Your task to perform on an android device: toggle notifications settings in the gmail app Image 0: 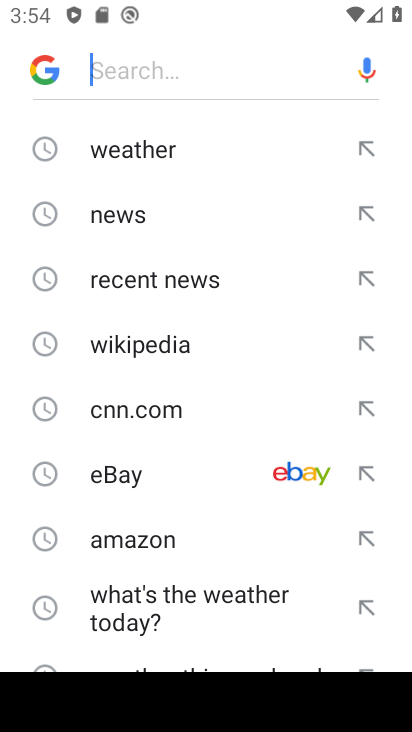
Step 0: press back button
Your task to perform on an android device: toggle notifications settings in the gmail app Image 1: 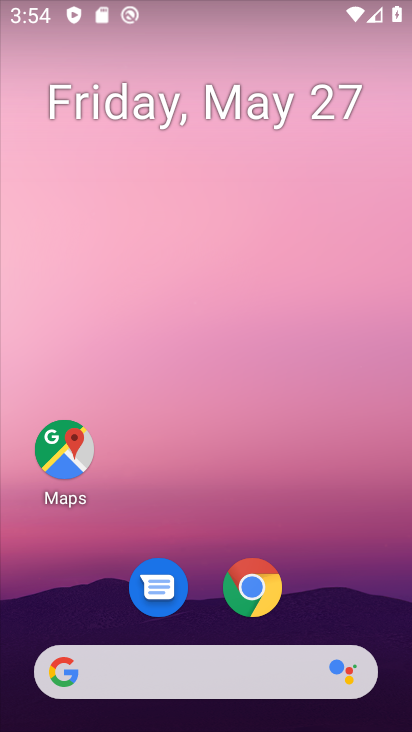
Step 1: drag from (334, 582) to (281, 47)
Your task to perform on an android device: toggle notifications settings in the gmail app Image 2: 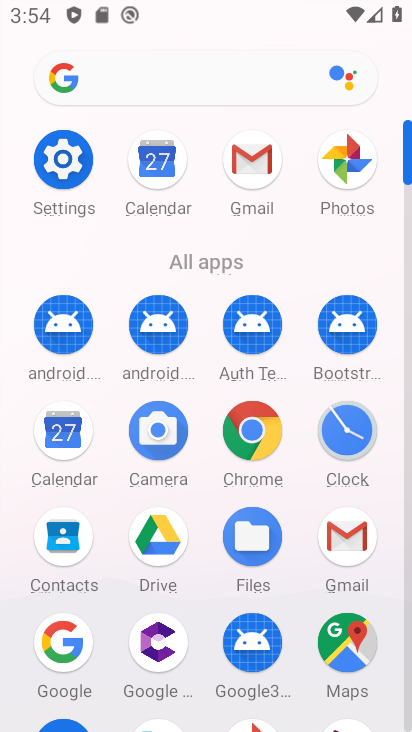
Step 2: drag from (9, 562) to (28, 190)
Your task to perform on an android device: toggle notifications settings in the gmail app Image 3: 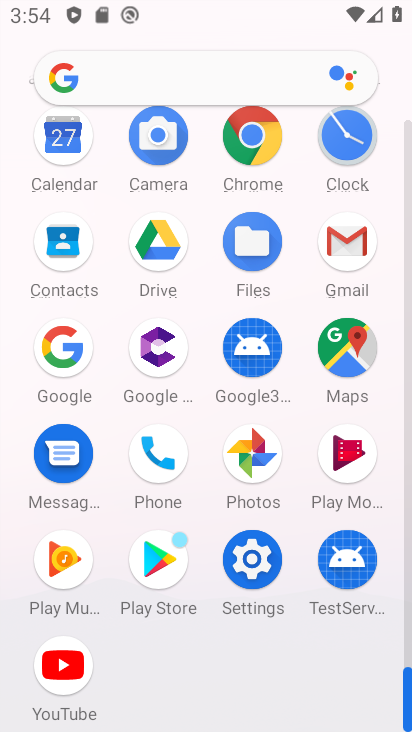
Step 3: drag from (3, 563) to (24, 232)
Your task to perform on an android device: toggle notifications settings in the gmail app Image 4: 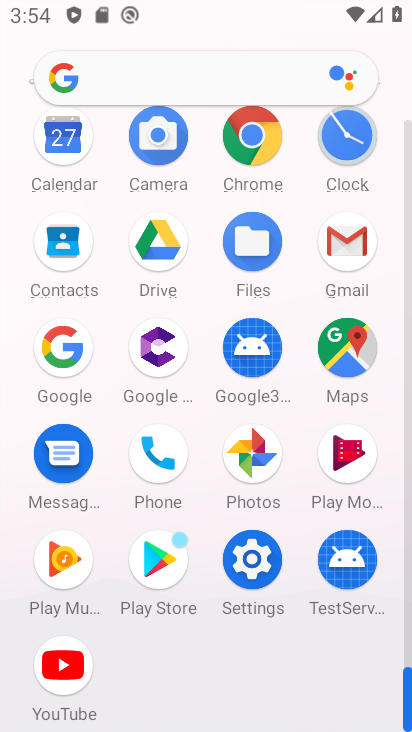
Step 4: click (349, 240)
Your task to perform on an android device: toggle notifications settings in the gmail app Image 5: 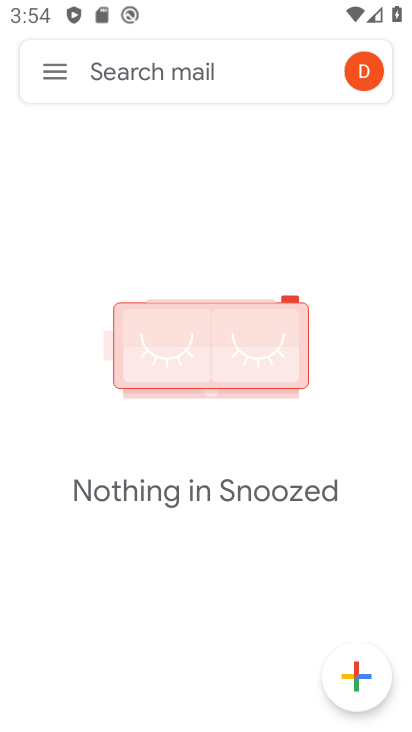
Step 5: click (56, 70)
Your task to perform on an android device: toggle notifications settings in the gmail app Image 6: 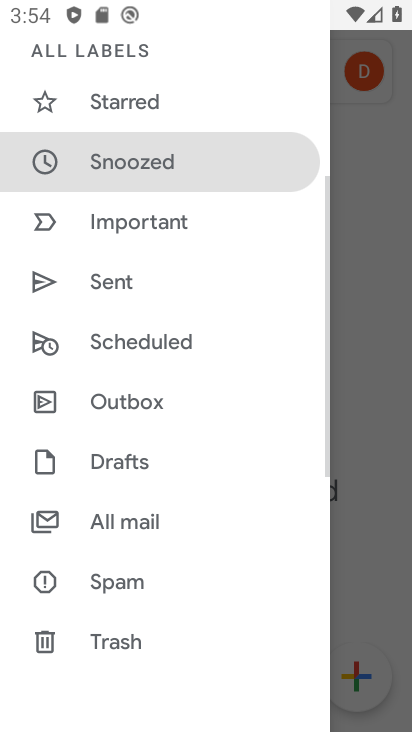
Step 6: drag from (149, 600) to (165, 185)
Your task to perform on an android device: toggle notifications settings in the gmail app Image 7: 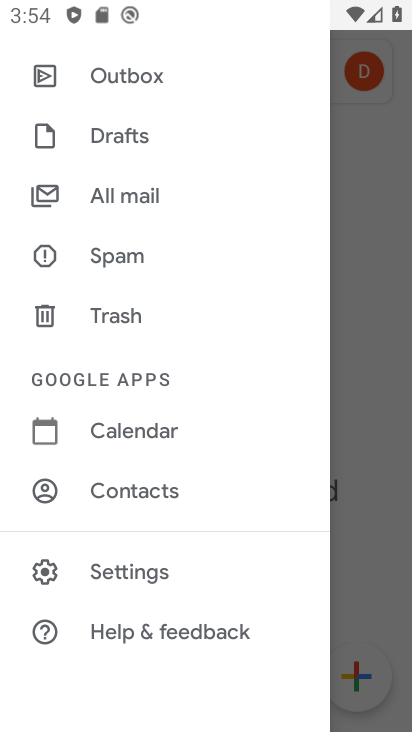
Step 7: drag from (155, 524) to (178, 190)
Your task to perform on an android device: toggle notifications settings in the gmail app Image 8: 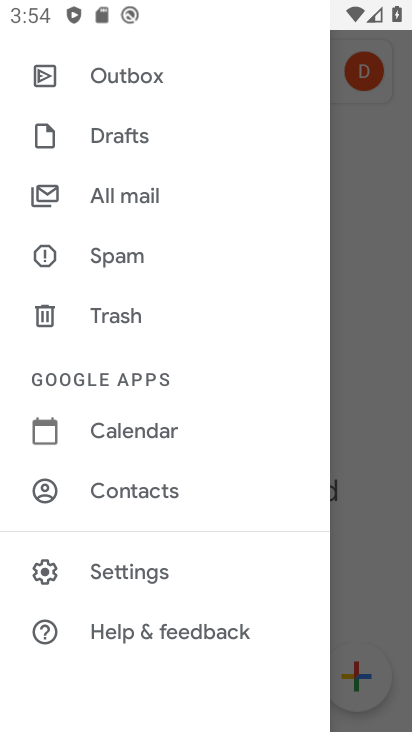
Step 8: click (126, 561)
Your task to perform on an android device: toggle notifications settings in the gmail app Image 9: 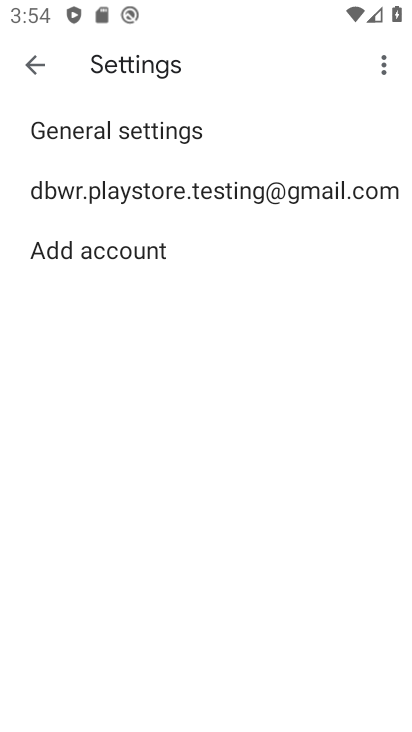
Step 9: click (158, 188)
Your task to perform on an android device: toggle notifications settings in the gmail app Image 10: 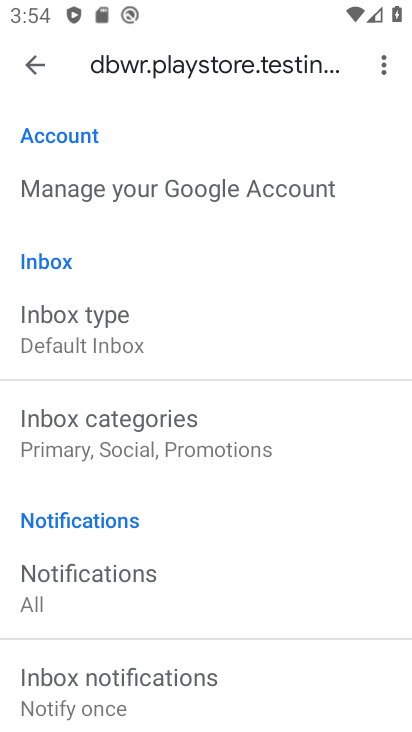
Step 10: drag from (189, 564) to (212, 173)
Your task to perform on an android device: toggle notifications settings in the gmail app Image 11: 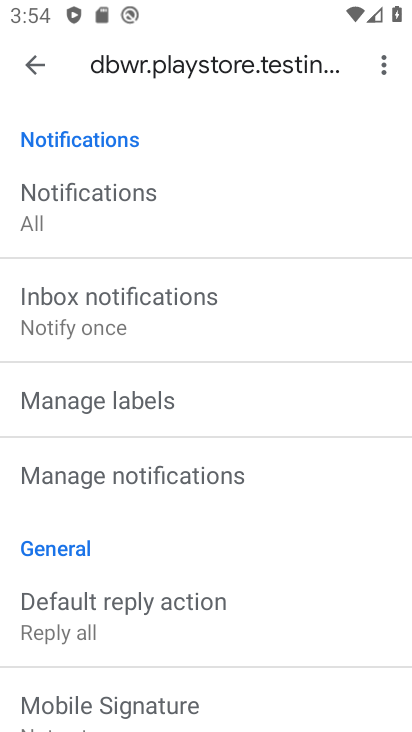
Step 11: click (150, 465)
Your task to perform on an android device: toggle notifications settings in the gmail app Image 12: 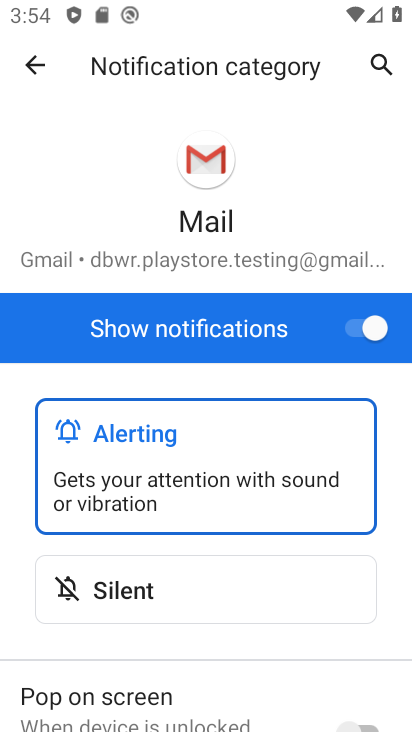
Step 12: drag from (235, 503) to (208, 254)
Your task to perform on an android device: toggle notifications settings in the gmail app Image 13: 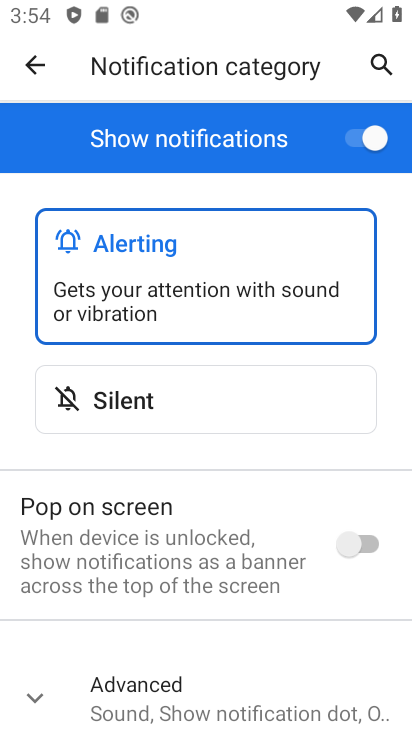
Step 13: drag from (247, 561) to (250, 159)
Your task to perform on an android device: toggle notifications settings in the gmail app Image 14: 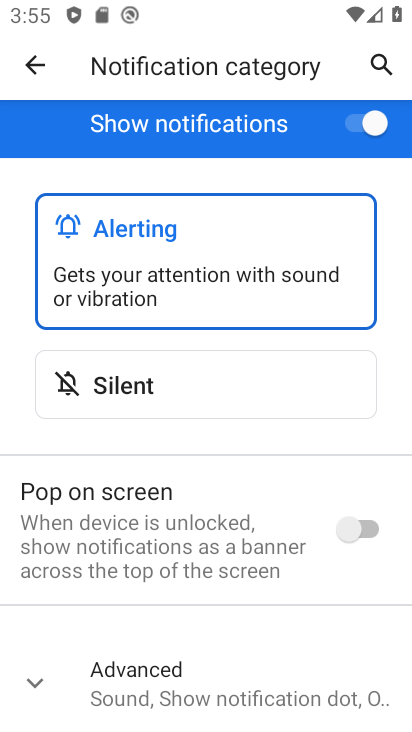
Step 14: click (41, 668)
Your task to perform on an android device: toggle notifications settings in the gmail app Image 15: 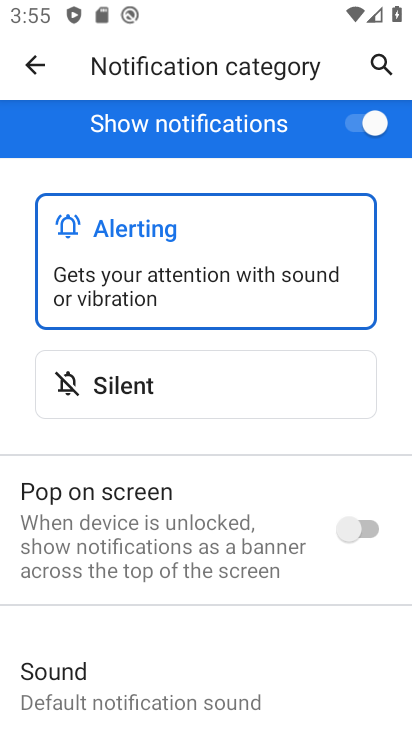
Step 15: drag from (196, 592) to (292, 199)
Your task to perform on an android device: toggle notifications settings in the gmail app Image 16: 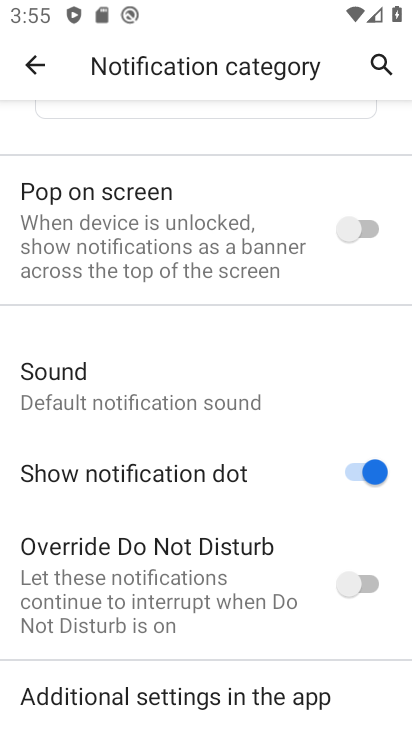
Step 16: drag from (185, 290) to (150, 676)
Your task to perform on an android device: toggle notifications settings in the gmail app Image 17: 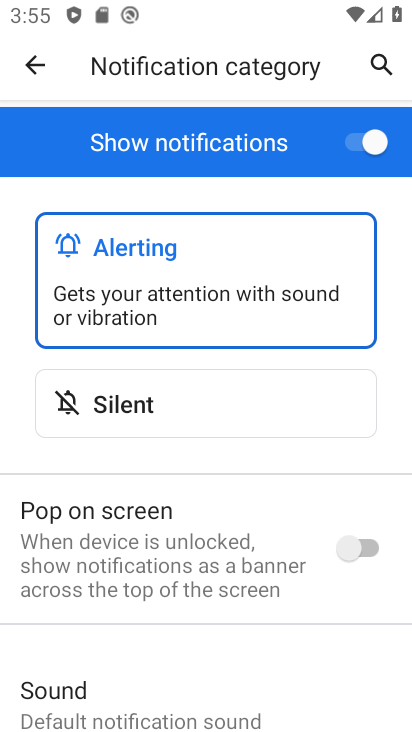
Step 17: drag from (182, 548) to (183, 123)
Your task to perform on an android device: toggle notifications settings in the gmail app Image 18: 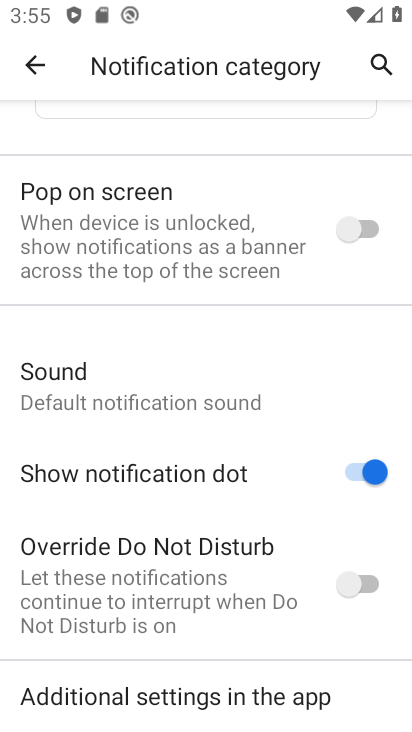
Step 18: click (25, 57)
Your task to perform on an android device: toggle notifications settings in the gmail app Image 19: 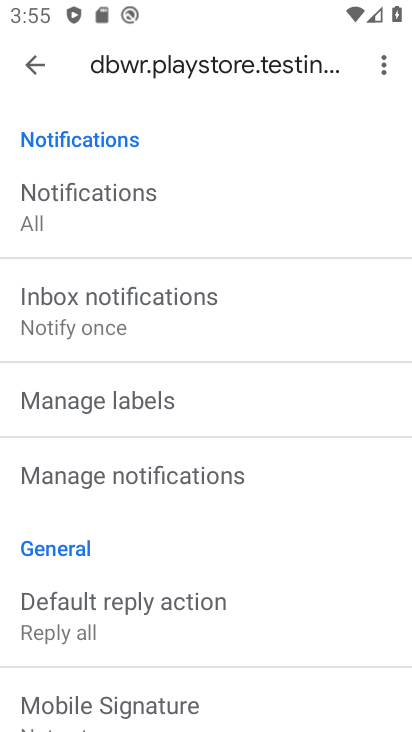
Step 19: click (149, 477)
Your task to perform on an android device: toggle notifications settings in the gmail app Image 20: 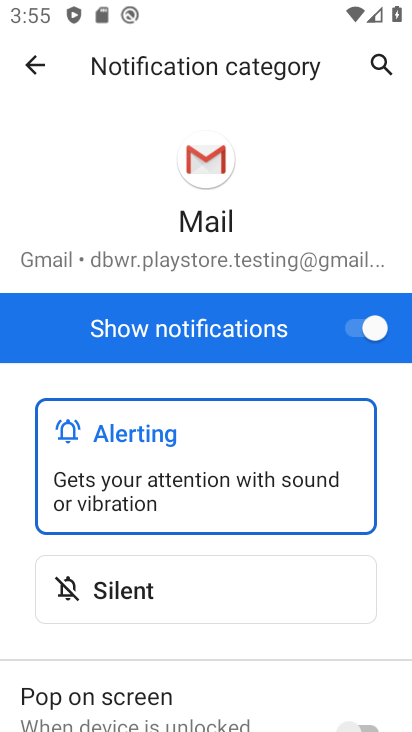
Step 20: click (32, 60)
Your task to perform on an android device: toggle notifications settings in the gmail app Image 21: 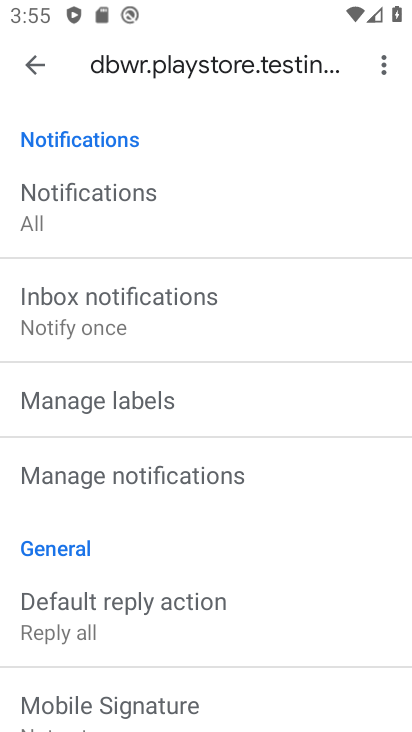
Step 21: click (36, 77)
Your task to perform on an android device: toggle notifications settings in the gmail app Image 22: 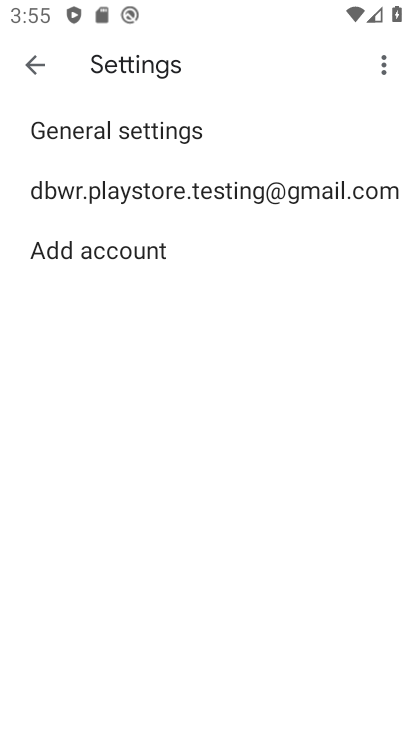
Step 22: click (135, 191)
Your task to perform on an android device: toggle notifications settings in the gmail app Image 23: 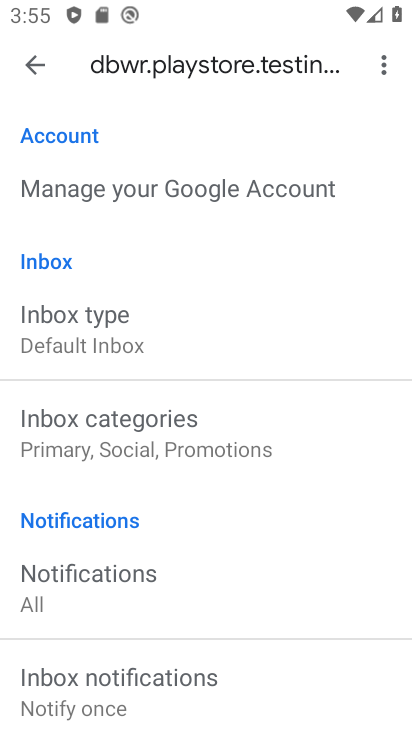
Step 23: click (130, 323)
Your task to perform on an android device: toggle notifications settings in the gmail app Image 24: 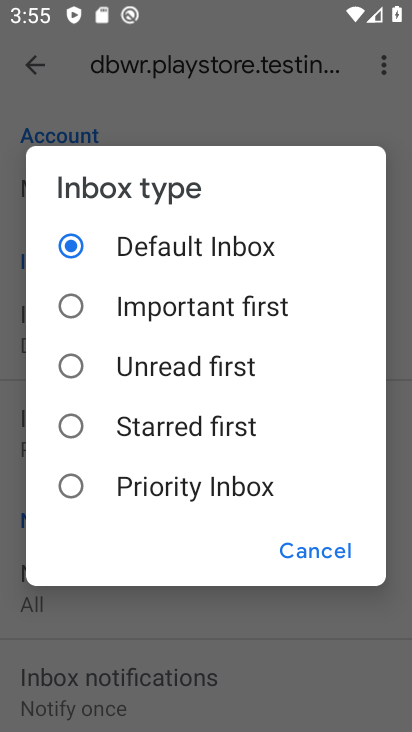
Step 24: click (314, 546)
Your task to perform on an android device: toggle notifications settings in the gmail app Image 25: 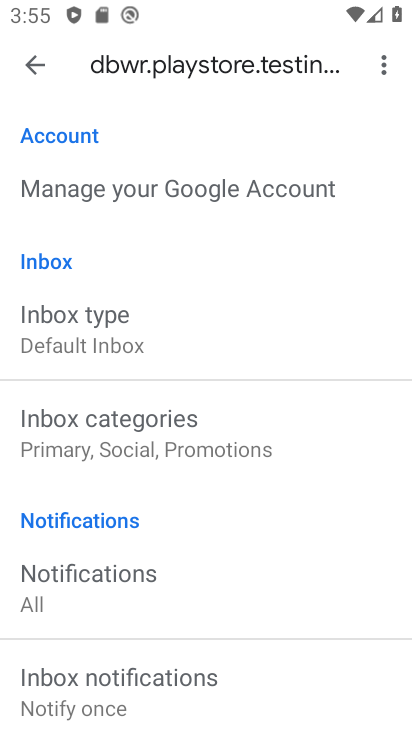
Step 25: drag from (243, 613) to (227, 238)
Your task to perform on an android device: toggle notifications settings in the gmail app Image 26: 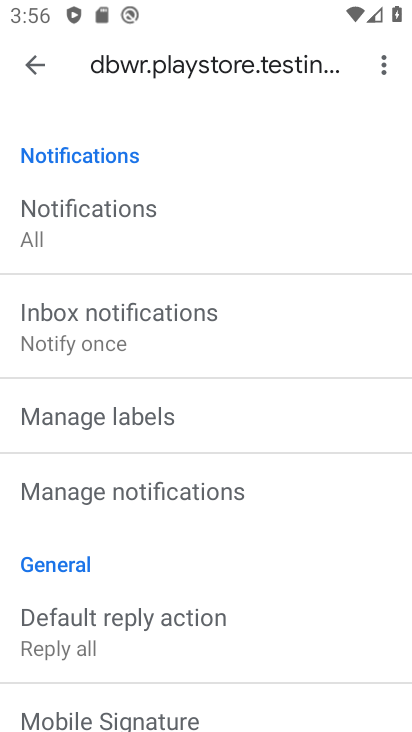
Step 26: click (121, 487)
Your task to perform on an android device: toggle notifications settings in the gmail app Image 27: 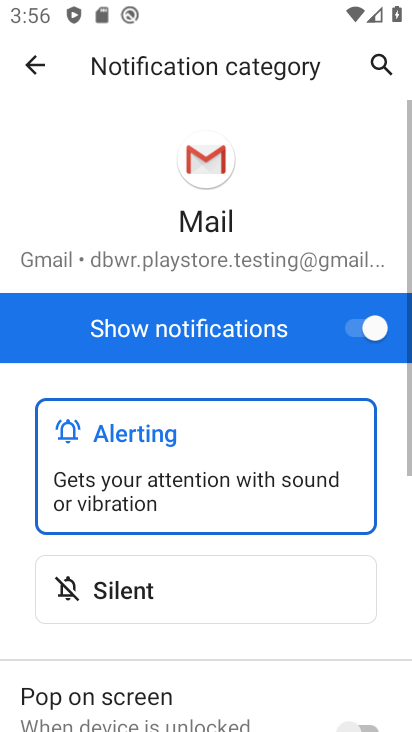
Step 27: click (362, 333)
Your task to perform on an android device: toggle notifications settings in the gmail app Image 28: 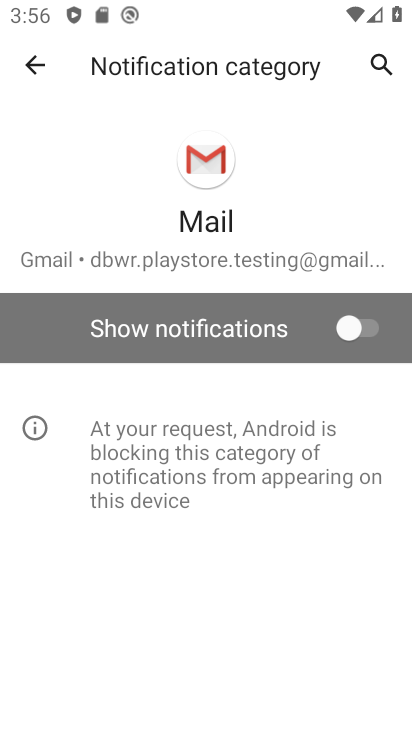
Step 28: task complete